Your task to perform on an android device: allow cookies in the chrome app Image 0: 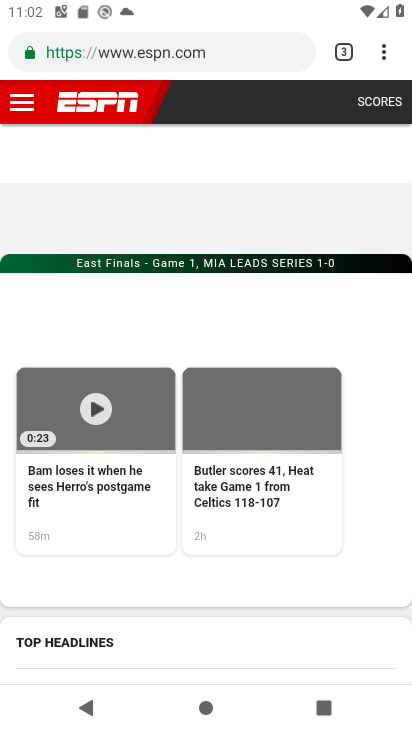
Step 0: drag from (385, 43) to (198, 598)
Your task to perform on an android device: allow cookies in the chrome app Image 1: 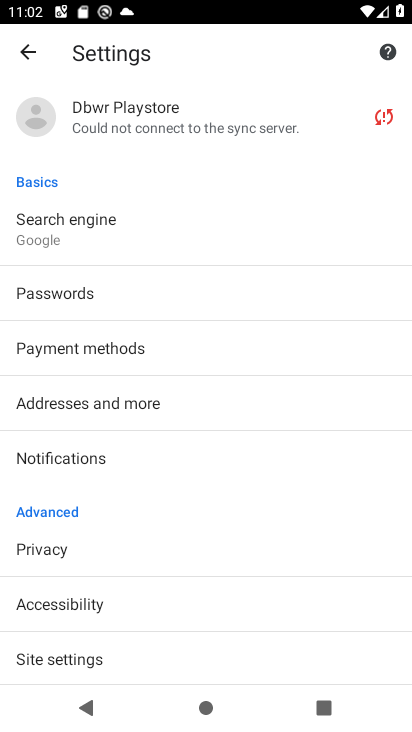
Step 1: click (71, 670)
Your task to perform on an android device: allow cookies in the chrome app Image 2: 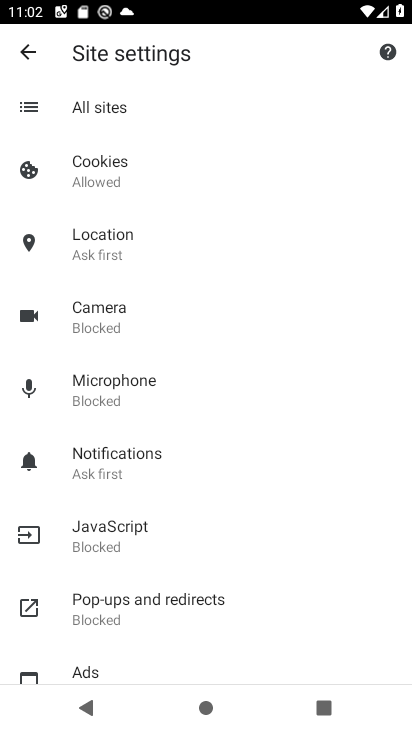
Step 2: click (95, 174)
Your task to perform on an android device: allow cookies in the chrome app Image 3: 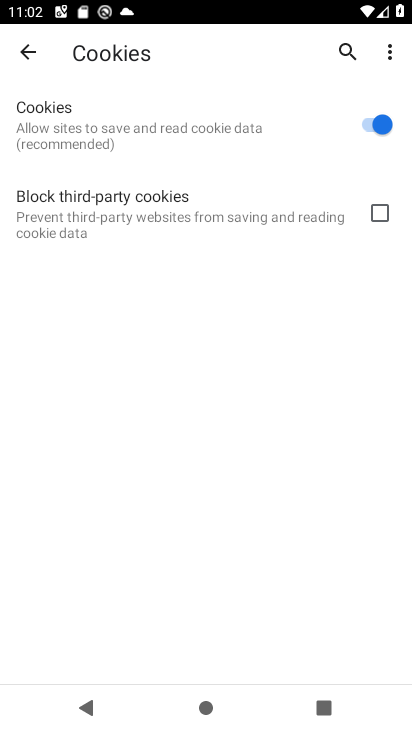
Step 3: task complete